Your task to perform on an android device: Clear the shopping cart on walmart.com. Image 0: 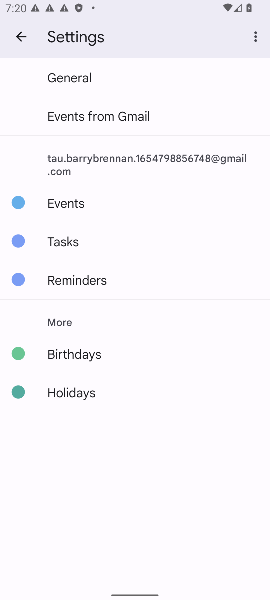
Step 0: press home button
Your task to perform on an android device: Clear the shopping cart on walmart.com. Image 1: 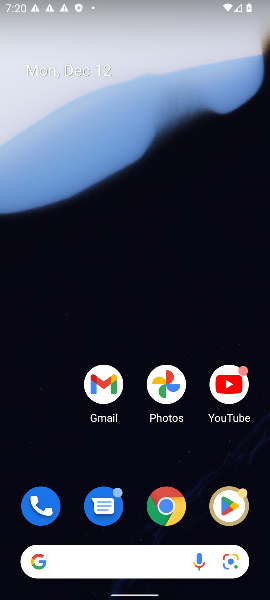
Step 1: click (139, 554)
Your task to perform on an android device: Clear the shopping cart on walmart.com. Image 2: 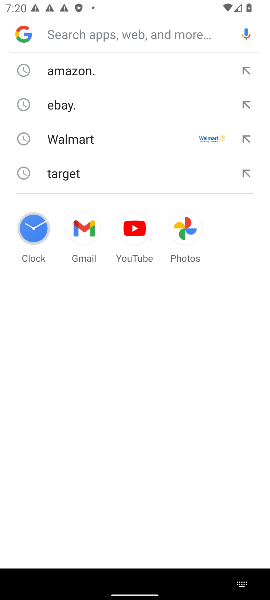
Step 2: click (104, 151)
Your task to perform on an android device: Clear the shopping cart on walmart.com. Image 3: 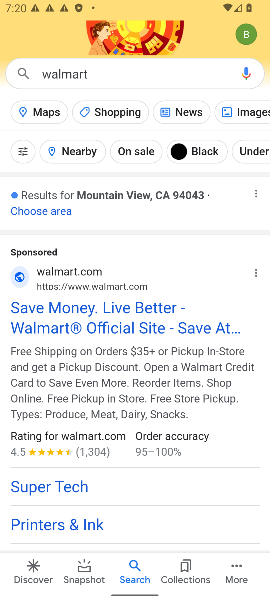
Step 3: click (129, 334)
Your task to perform on an android device: Clear the shopping cart on walmart.com. Image 4: 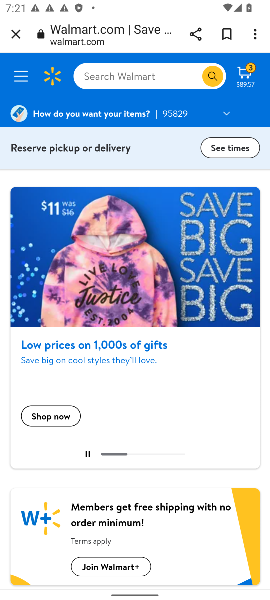
Step 4: click (101, 79)
Your task to perform on an android device: Clear the shopping cart on walmart.com. Image 5: 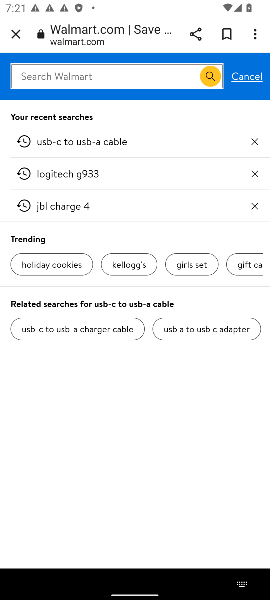
Step 5: click (246, 86)
Your task to perform on an android device: Clear the shopping cart on walmart.com. Image 6: 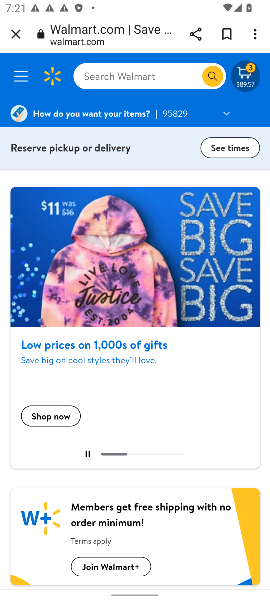
Step 6: click (246, 86)
Your task to perform on an android device: Clear the shopping cart on walmart.com. Image 7: 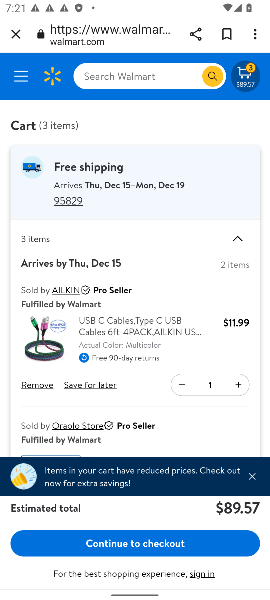
Step 7: click (47, 386)
Your task to perform on an android device: Clear the shopping cart on walmart.com. Image 8: 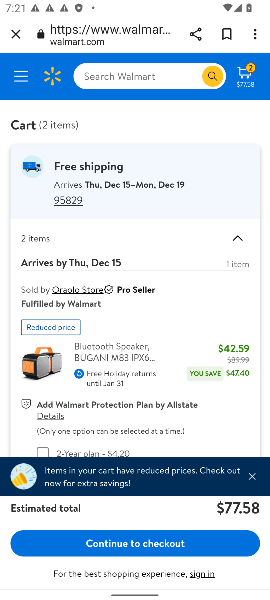
Step 8: drag from (161, 384) to (191, 202)
Your task to perform on an android device: Clear the shopping cart on walmart.com. Image 9: 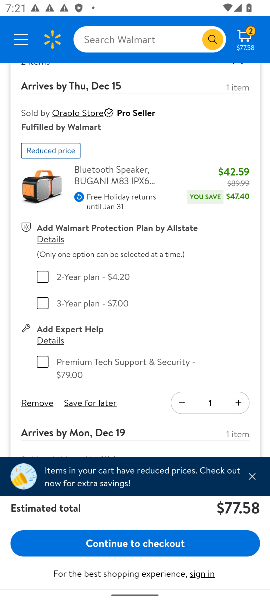
Step 9: click (41, 401)
Your task to perform on an android device: Clear the shopping cart on walmart.com. Image 10: 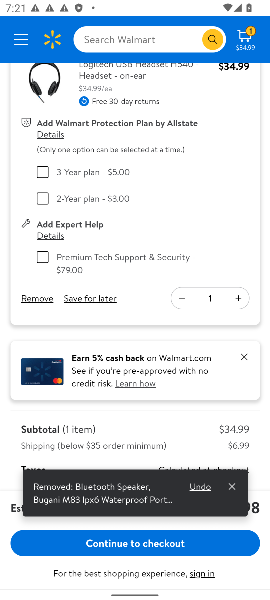
Step 10: click (44, 307)
Your task to perform on an android device: Clear the shopping cart on walmart.com. Image 11: 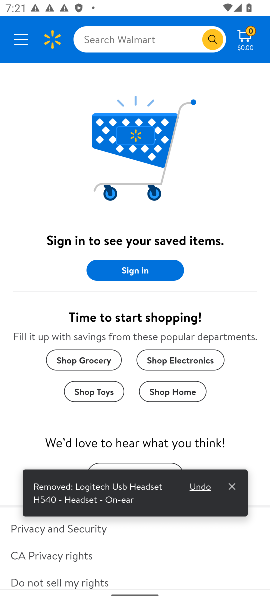
Step 11: task complete